Your task to perform on an android device: turn on showing notifications on the lock screen Image 0: 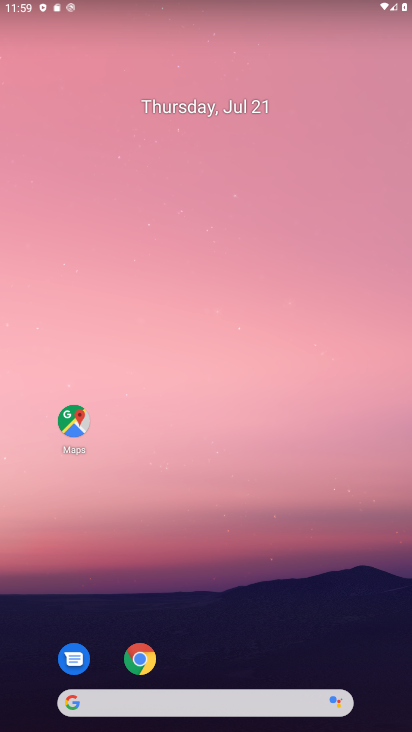
Step 0: drag from (229, 644) to (195, 19)
Your task to perform on an android device: turn on showing notifications on the lock screen Image 1: 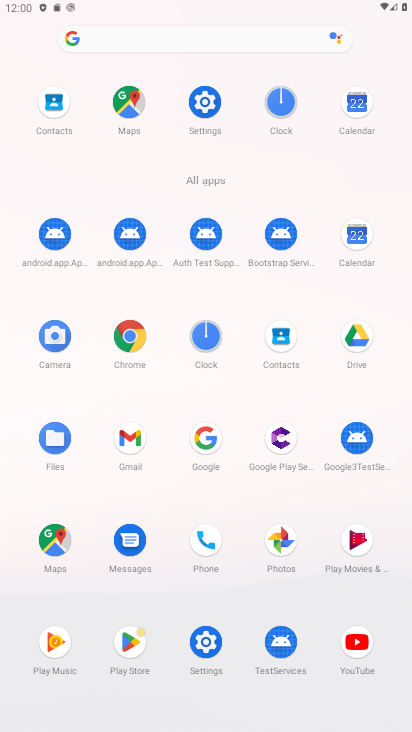
Step 1: click (195, 110)
Your task to perform on an android device: turn on showing notifications on the lock screen Image 2: 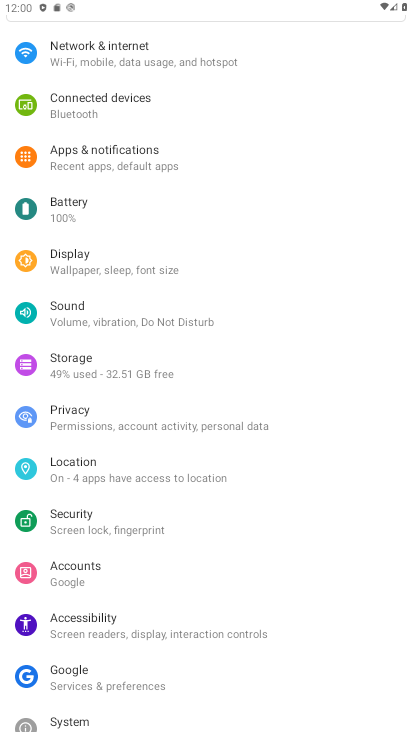
Step 2: click (155, 162)
Your task to perform on an android device: turn on showing notifications on the lock screen Image 3: 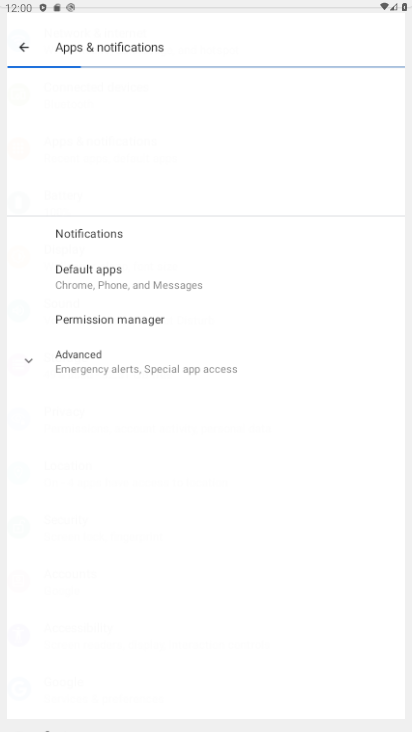
Step 3: task complete